Your task to perform on an android device: turn on wifi Image 0: 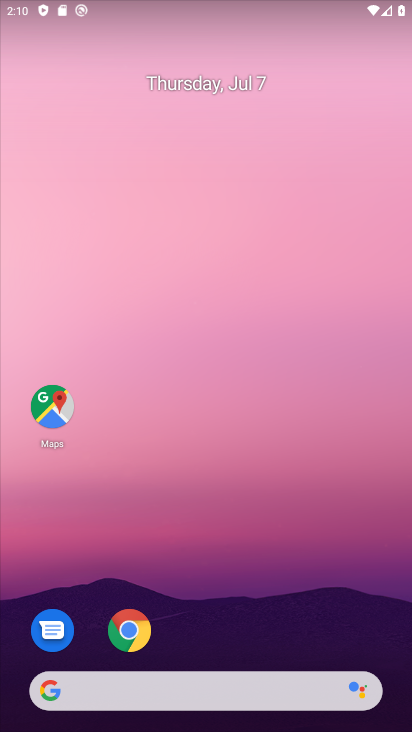
Step 0: drag from (249, 592) to (212, 332)
Your task to perform on an android device: turn on wifi Image 1: 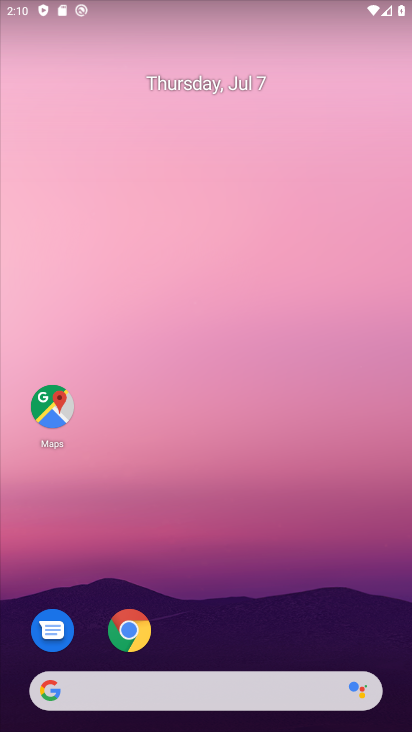
Step 1: drag from (238, 618) to (340, 254)
Your task to perform on an android device: turn on wifi Image 2: 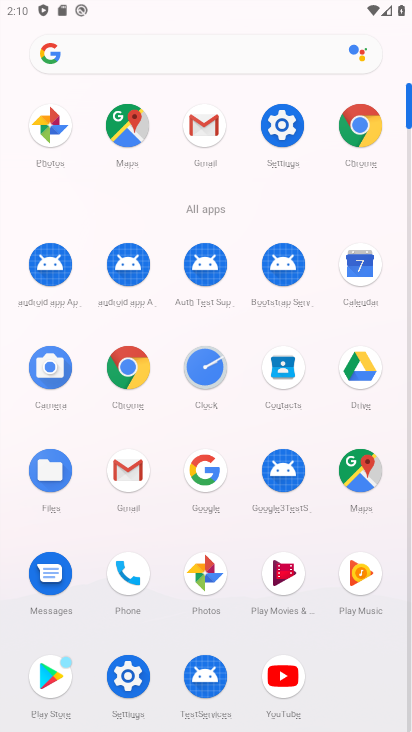
Step 2: click (287, 110)
Your task to perform on an android device: turn on wifi Image 3: 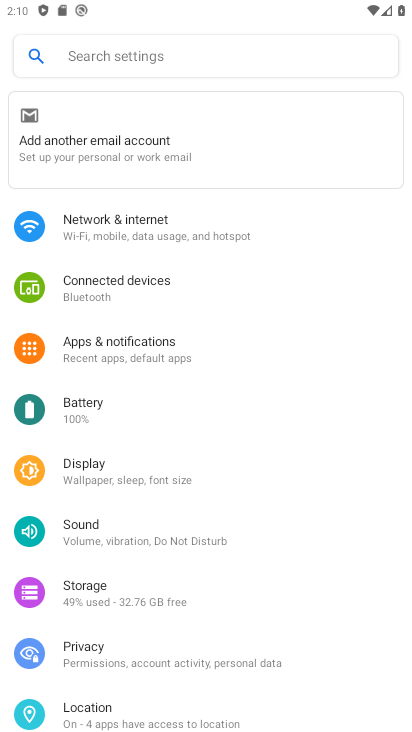
Step 3: click (117, 211)
Your task to perform on an android device: turn on wifi Image 4: 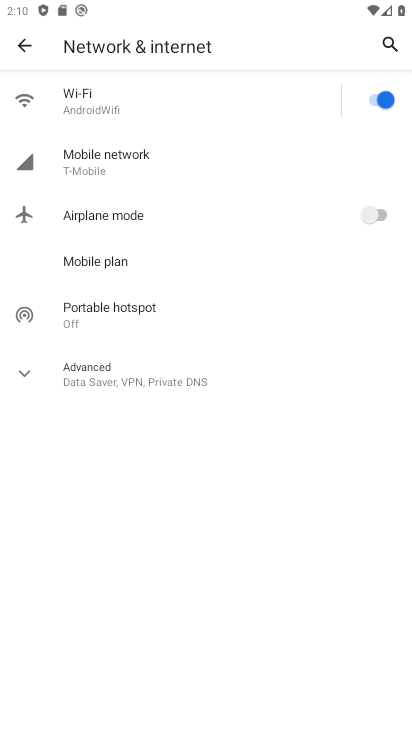
Step 4: click (211, 104)
Your task to perform on an android device: turn on wifi Image 5: 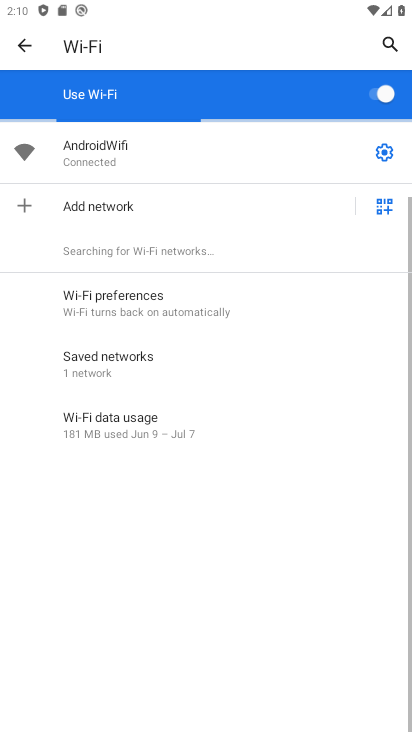
Step 5: task complete